Your task to perform on an android device: toggle notification dots Image 0: 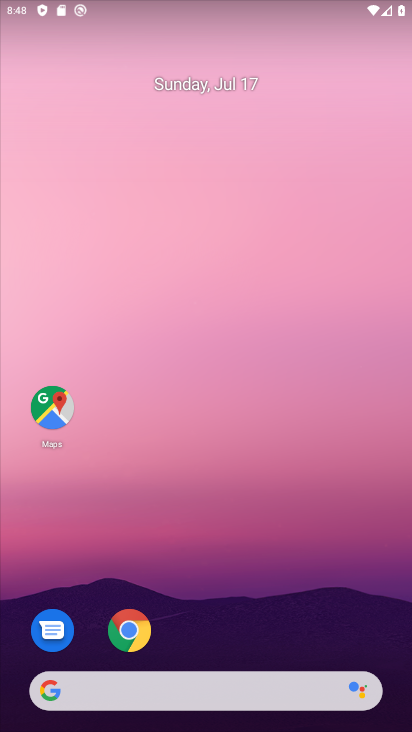
Step 0: drag from (230, 623) to (354, 73)
Your task to perform on an android device: toggle notification dots Image 1: 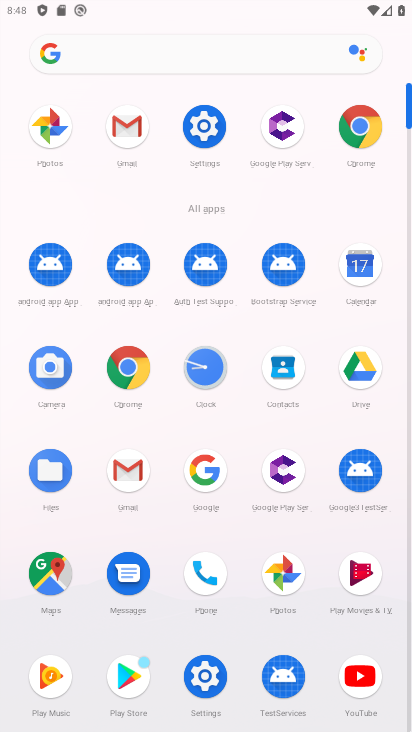
Step 1: click (215, 688)
Your task to perform on an android device: toggle notification dots Image 2: 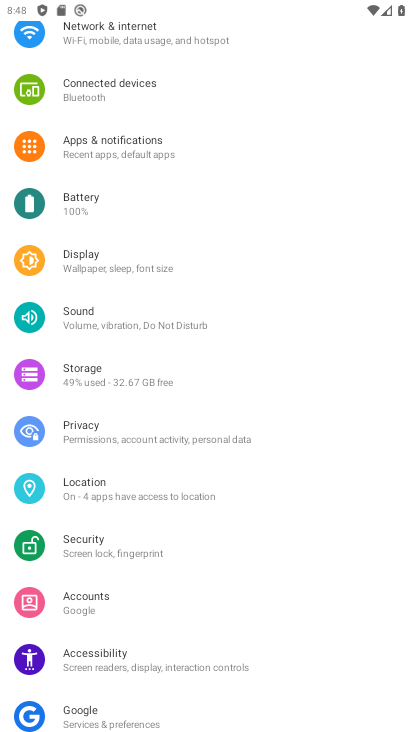
Step 2: click (217, 154)
Your task to perform on an android device: toggle notification dots Image 3: 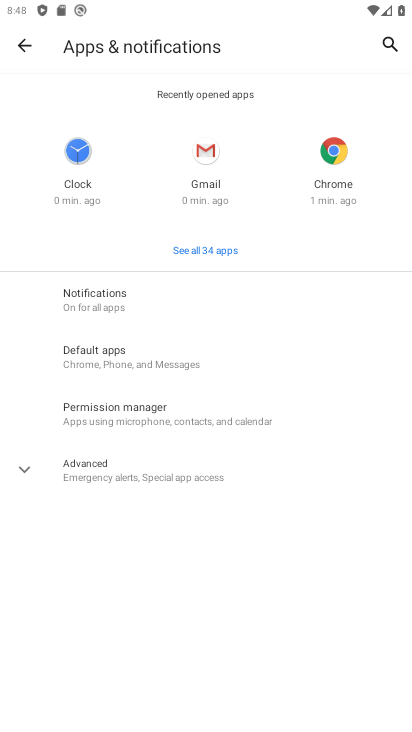
Step 3: click (195, 307)
Your task to perform on an android device: toggle notification dots Image 4: 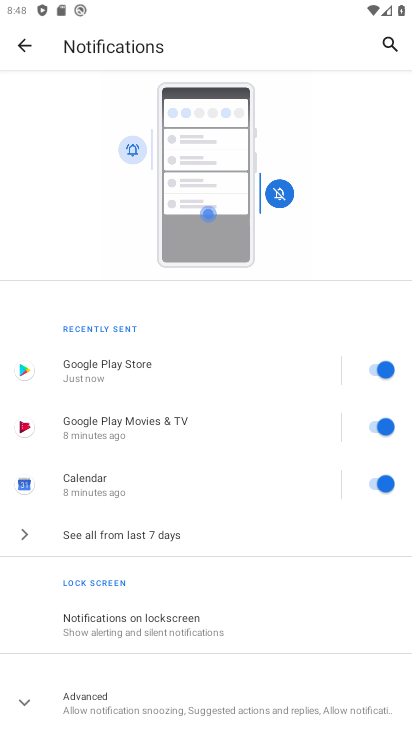
Step 4: drag from (173, 645) to (261, 123)
Your task to perform on an android device: toggle notification dots Image 5: 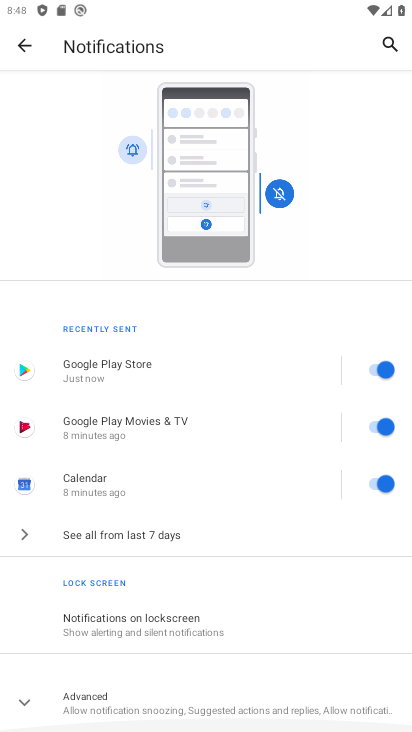
Step 5: click (192, 700)
Your task to perform on an android device: toggle notification dots Image 6: 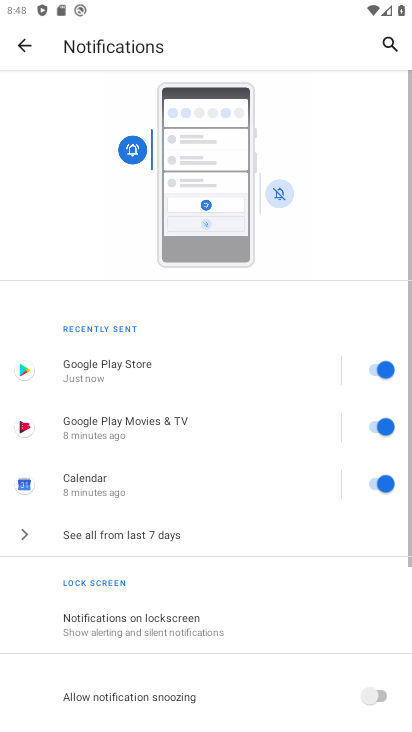
Step 6: drag from (183, 690) to (340, 196)
Your task to perform on an android device: toggle notification dots Image 7: 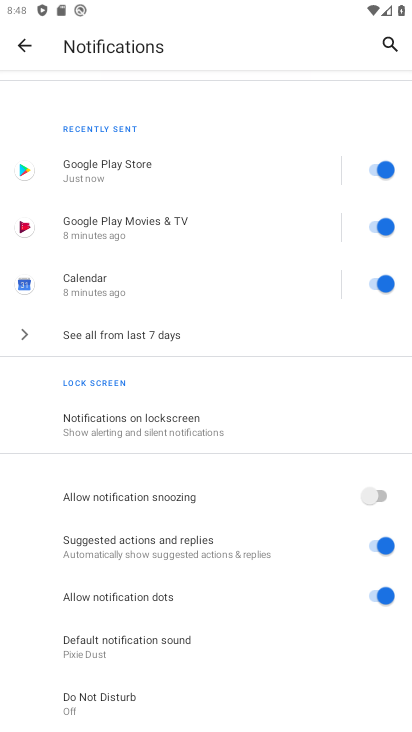
Step 7: click (372, 597)
Your task to perform on an android device: toggle notification dots Image 8: 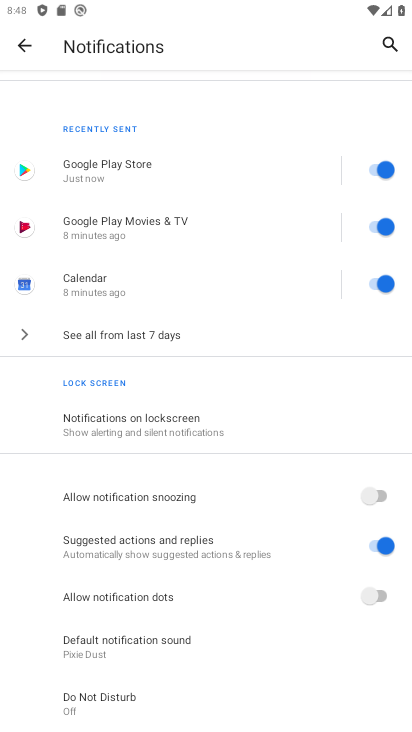
Step 8: task complete